Your task to perform on an android device: Open eBay Image 0: 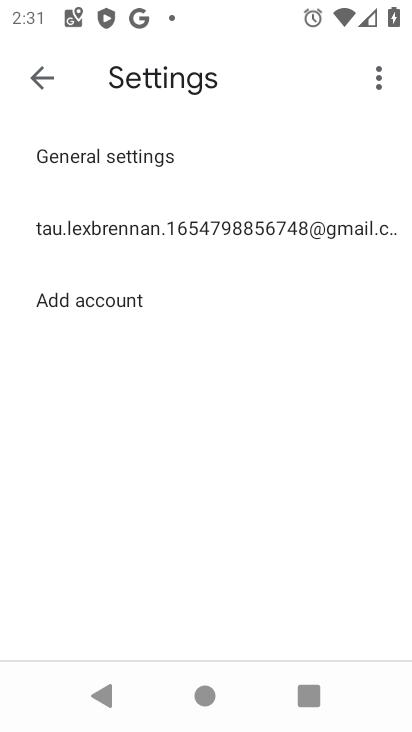
Step 0: task impossible